Your task to perform on an android device: read, delete, or share a saved page in the chrome app Image 0: 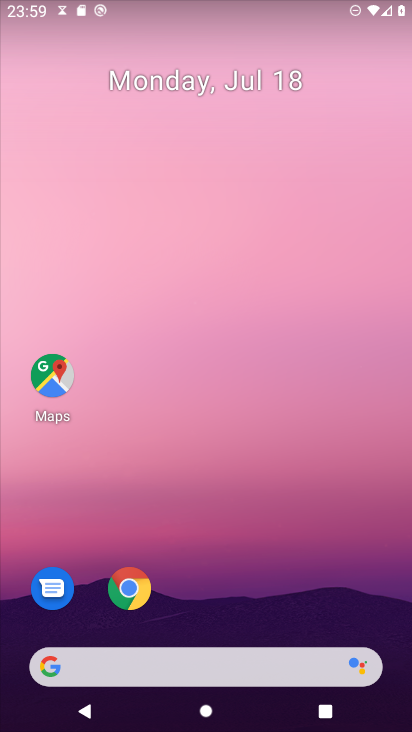
Step 0: press home button
Your task to perform on an android device: read, delete, or share a saved page in the chrome app Image 1: 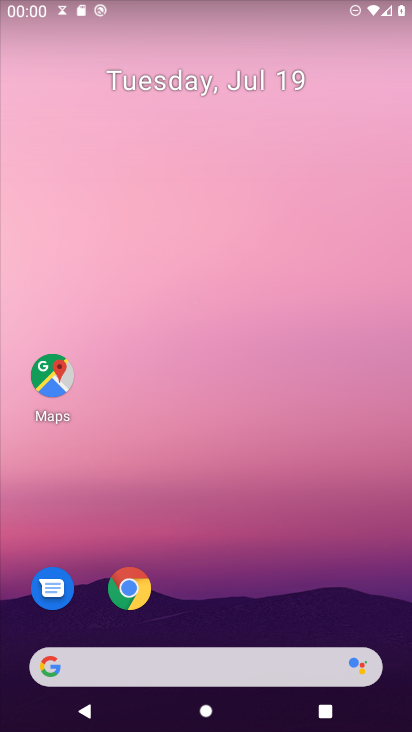
Step 1: click (128, 584)
Your task to perform on an android device: read, delete, or share a saved page in the chrome app Image 2: 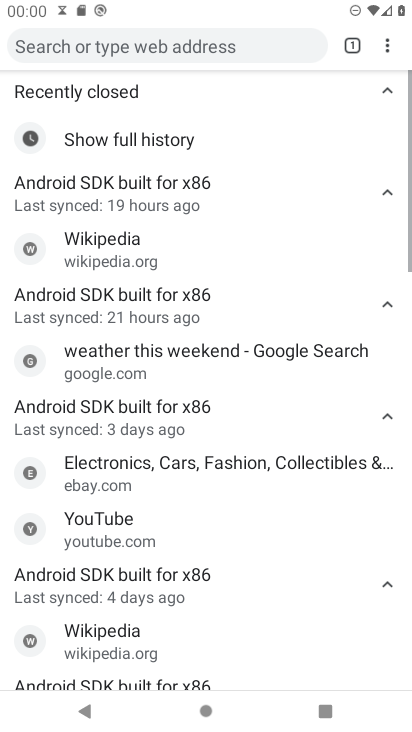
Step 2: task complete